Your task to perform on an android device: Search for "logitech g933" on target.com, select the first entry, and add it to the cart. Image 0: 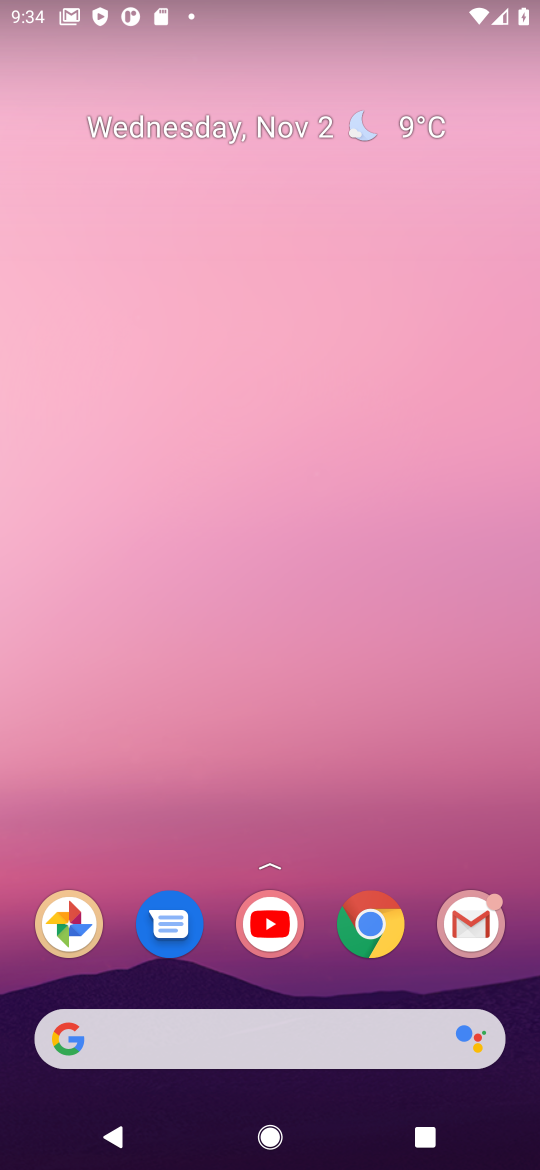
Step 0: click (349, 930)
Your task to perform on an android device: Search for "logitech g933" on target.com, select the first entry, and add it to the cart. Image 1: 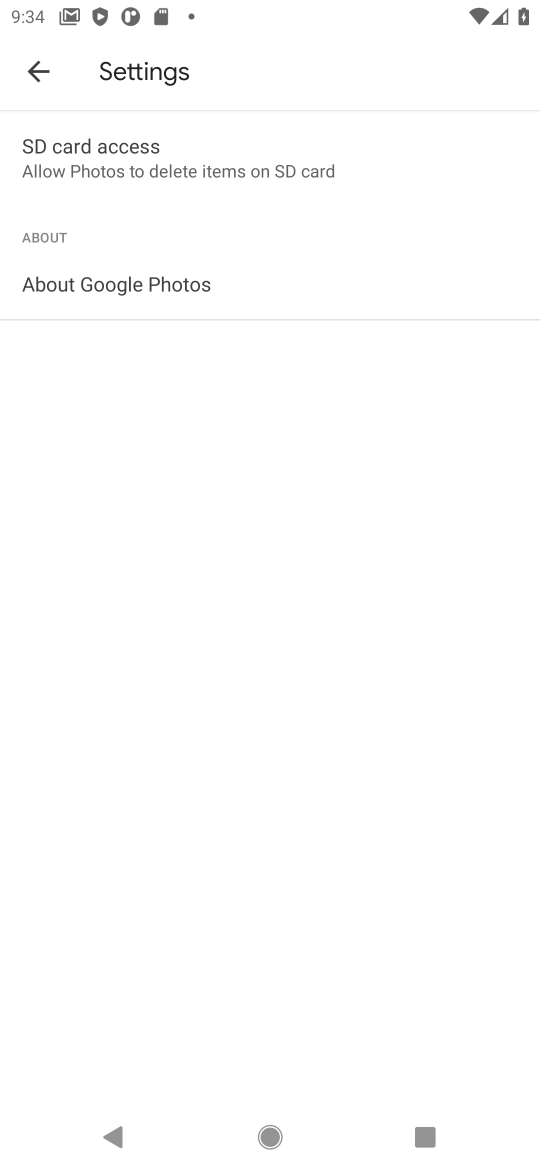
Step 1: press home button
Your task to perform on an android device: Search for "logitech g933" on target.com, select the first entry, and add it to the cart. Image 2: 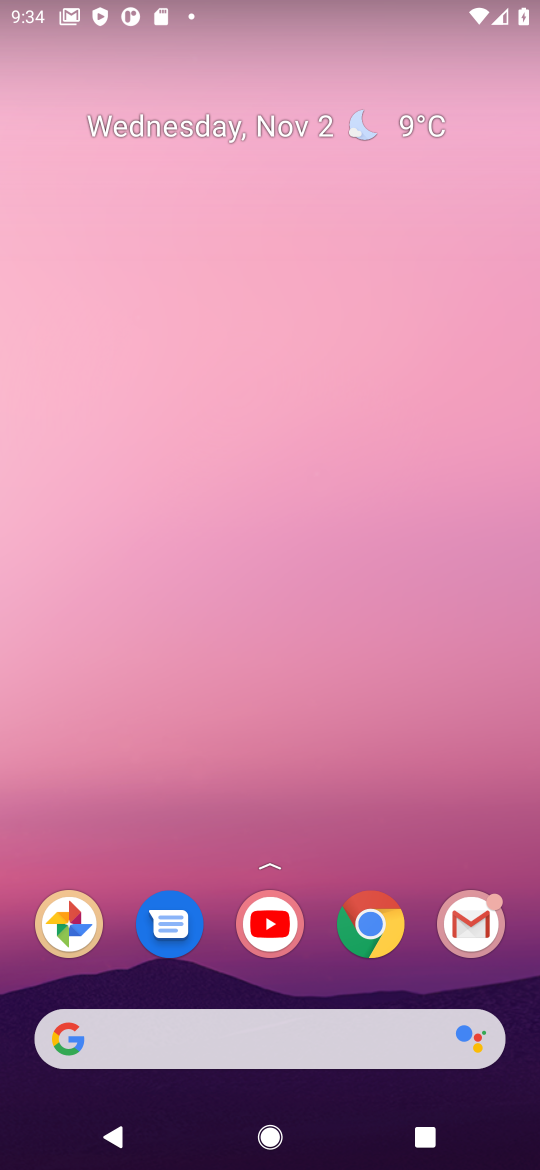
Step 2: click (378, 936)
Your task to perform on an android device: Search for "logitech g933" on target.com, select the first entry, and add it to the cart. Image 3: 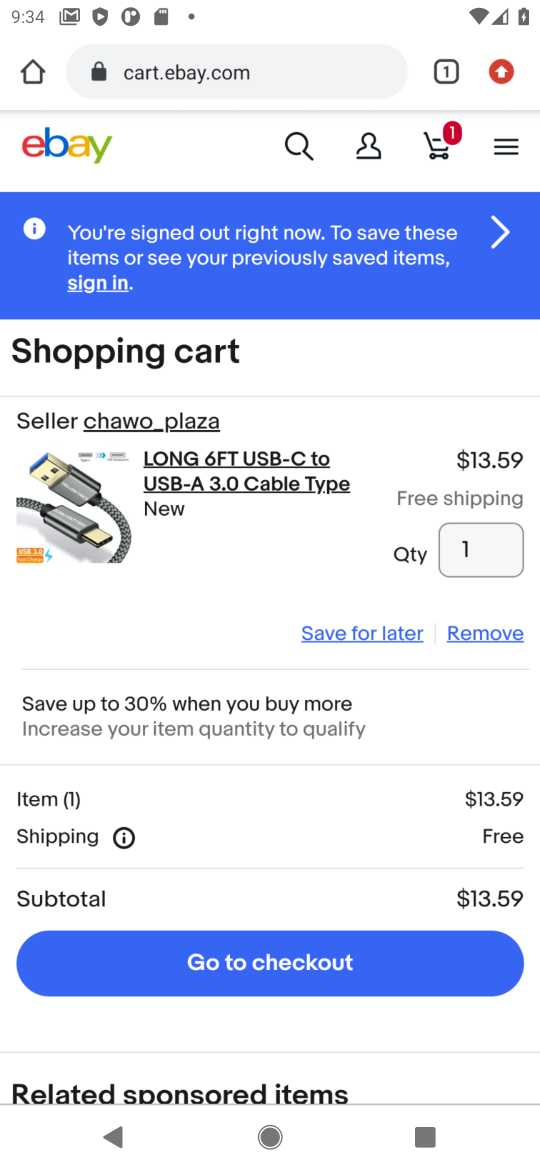
Step 3: click (355, 926)
Your task to perform on an android device: Search for "logitech g933" on target.com, select the first entry, and add it to the cart. Image 4: 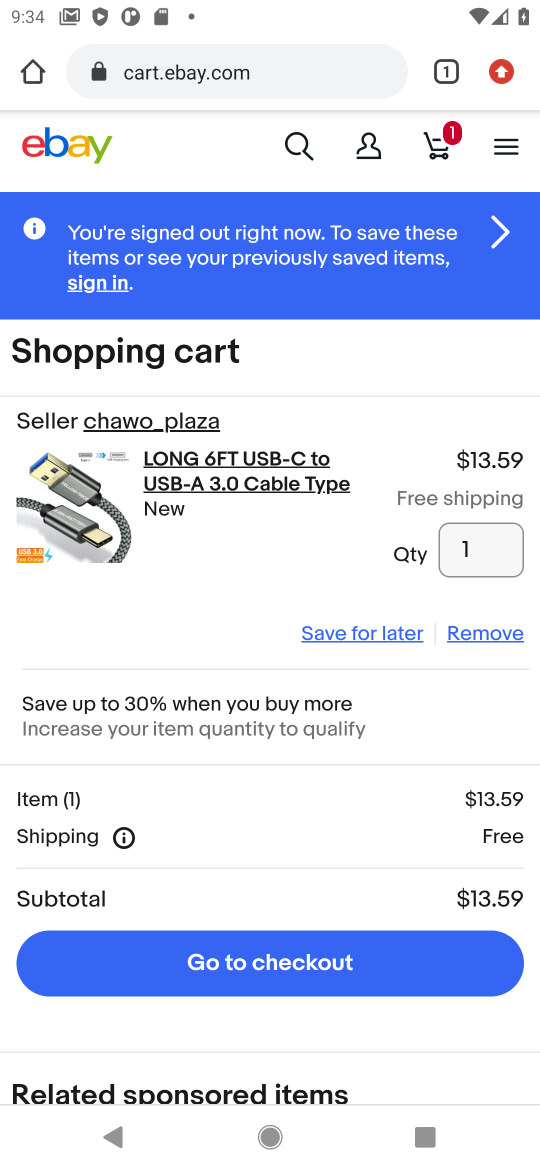
Step 4: click (303, 149)
Your task to perform on an android device: Search for "logitech g933" on target.com, select the first entry, and add it to the cart. Image 5: 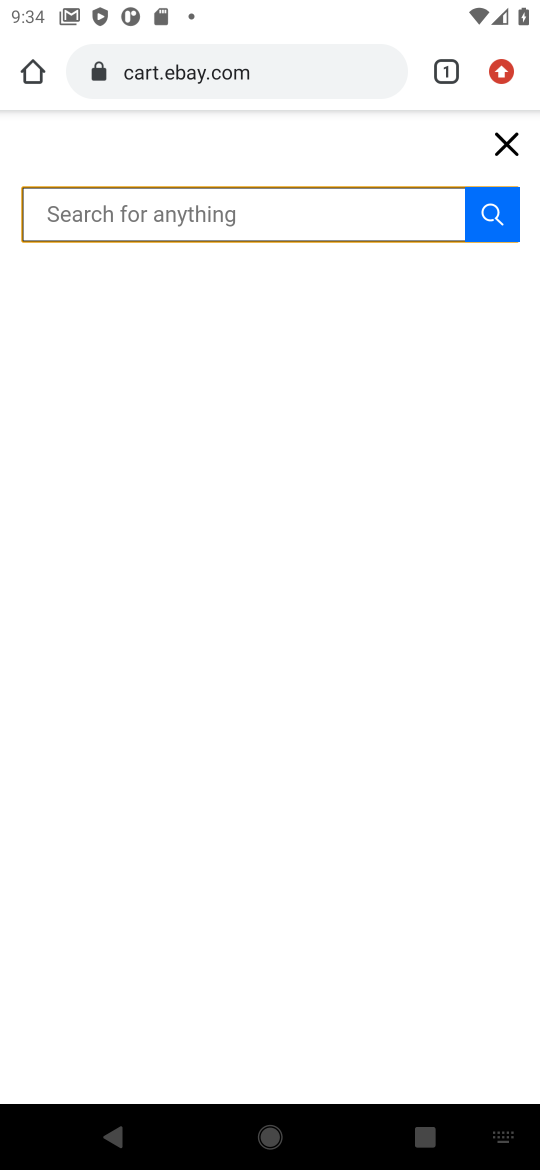
Step 5: click (137, 67)
Your task to perform on an android device: Search for "logitech g933" on target.com, select the first entry, and add it to the cart. Image 6: 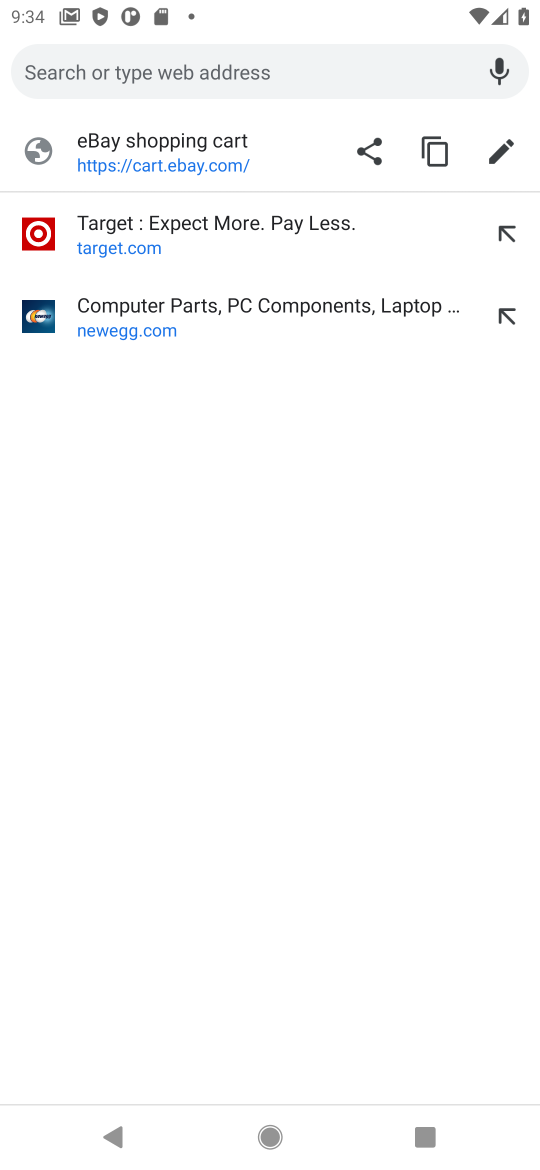
Step 6: click (121, 222)
Your task to perform on an android device: Search for "logitech g933" on target.com, select the first entry, and add it to the cart. Image 7: 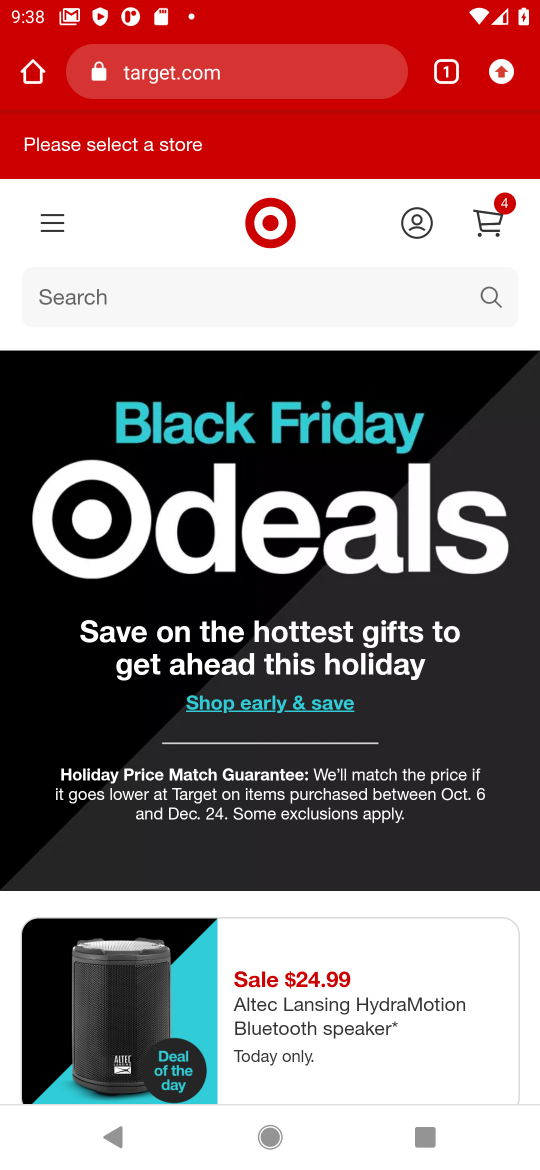
Step 7: click (479, 297)
Your task to perform on an android device: Search for "logitech g933" on target.com, select the first entry, and add it to the cart. Image 8: 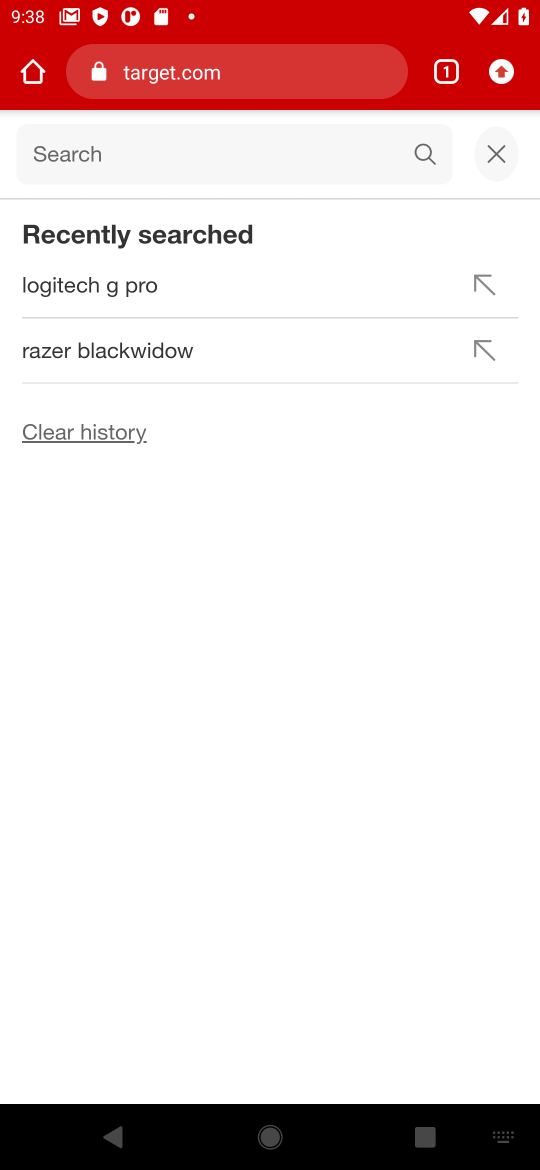
Step 8: click (145, 288)
Your task to perform on an android device: Search for "logitech g933" on target.com, select the first entry, and add it to the cart. Image 9: 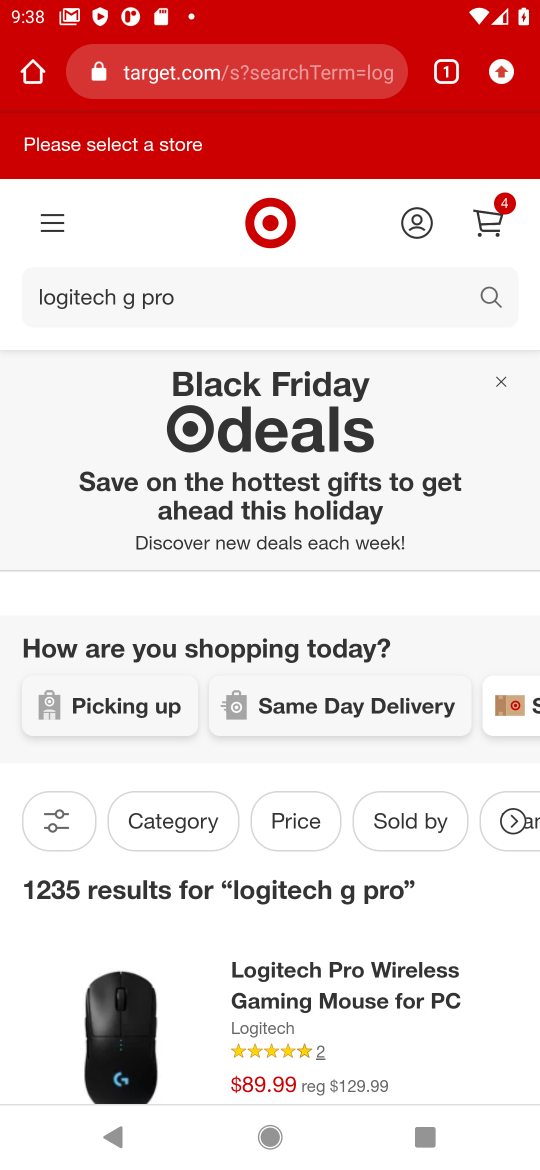
Step 9: drag from (243, 950) to (302, 333)
Your task to perform on an android device: Search for "logitech g933" on target.com, select the first entry, and add it to the cart. Image 10: 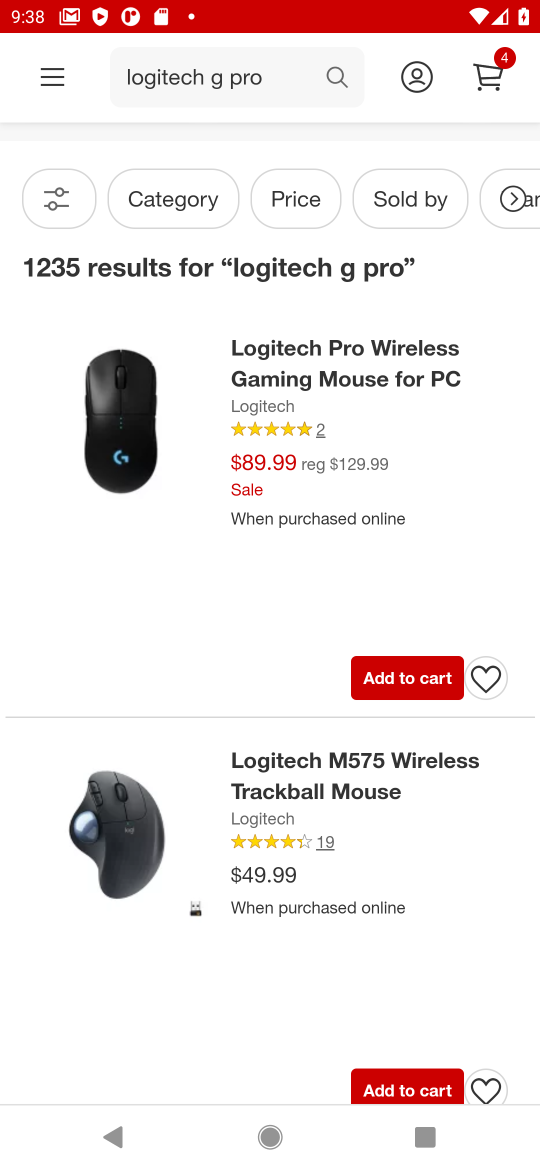
Step 10: click (395, 680)
Your task to perform on an android device: Search for "logitech g933" on target.com, select the first entry, and add it to the cart. Image 11: 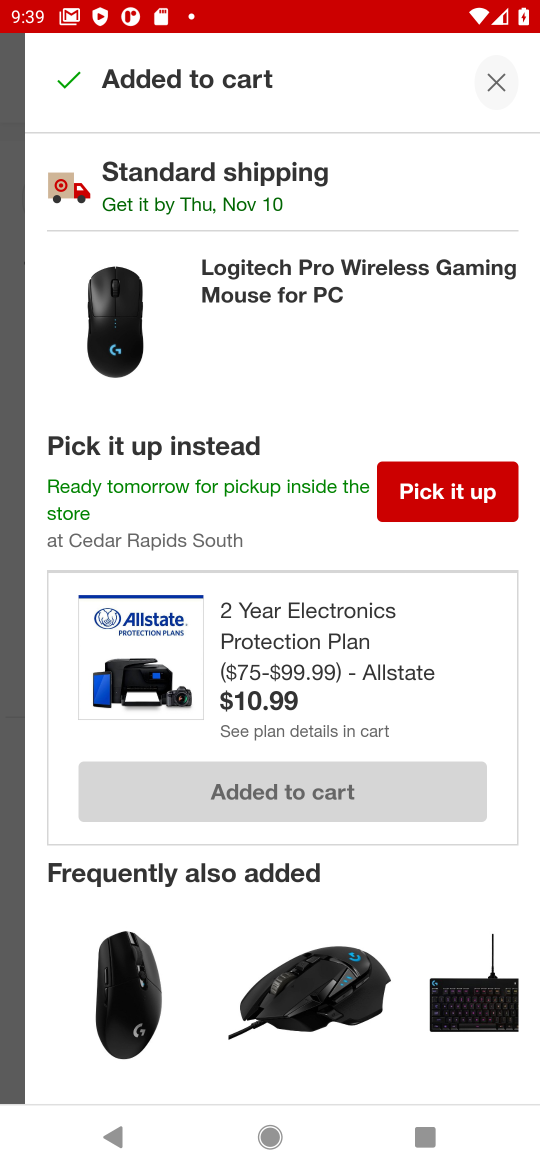
Step 11: task complete